Your task to perform on an android device: Go to accessibility settings Image 0: 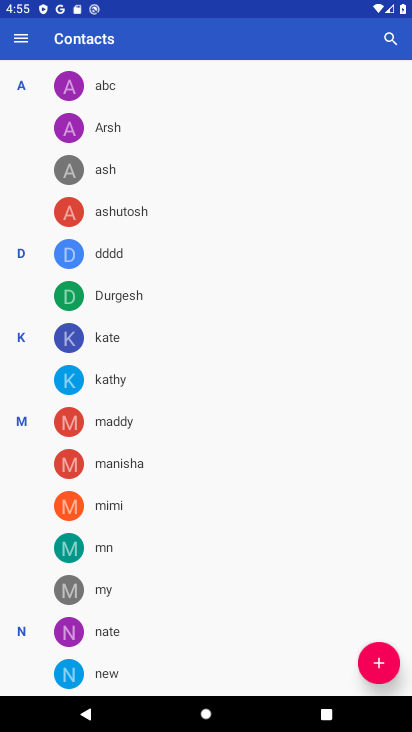
Step 0: press home button
Your task to perform on an android device: Go to accessibility settings Image 1: 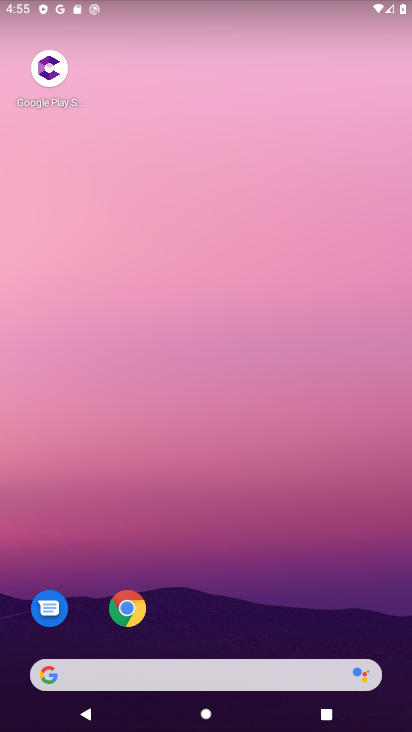
Step 1: drag from (166, 612) to (217, 247)
Your task to perform on an android device: Go to accessibility settings Image 2: 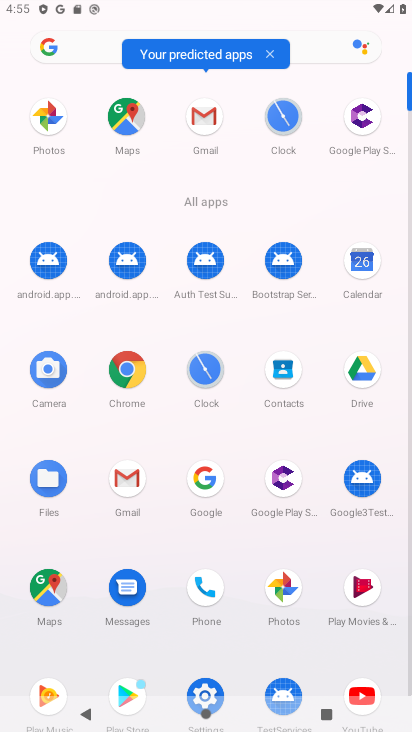
Step 2: drag from (194, 615) to (245, 332)
Your task to perform on an android device: Go to accessibility settings Image 3: 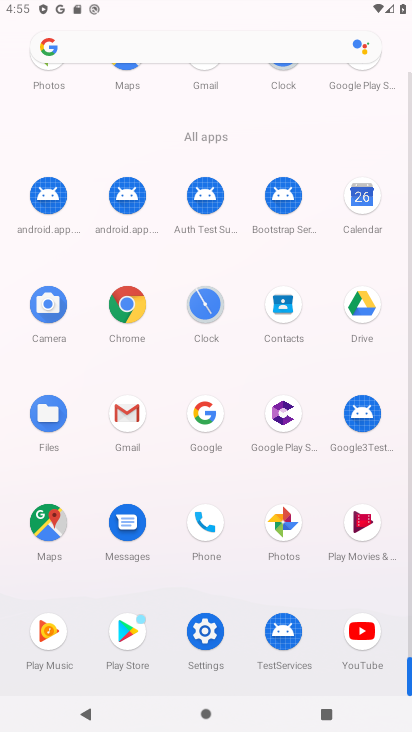
Step 3: click (215, 638)
Your task to perform on an android device: Go to accessibility settings Image 4: 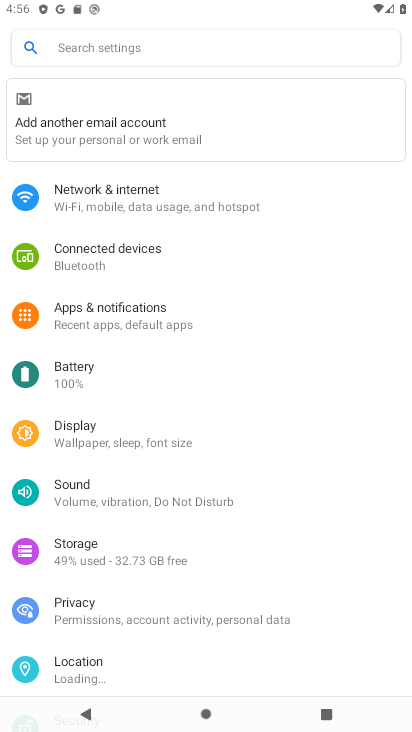
Step 4: drag from (188, 377) to (284, 0)
Your task to perform on an android device: Go to accessibility settings Image 5: 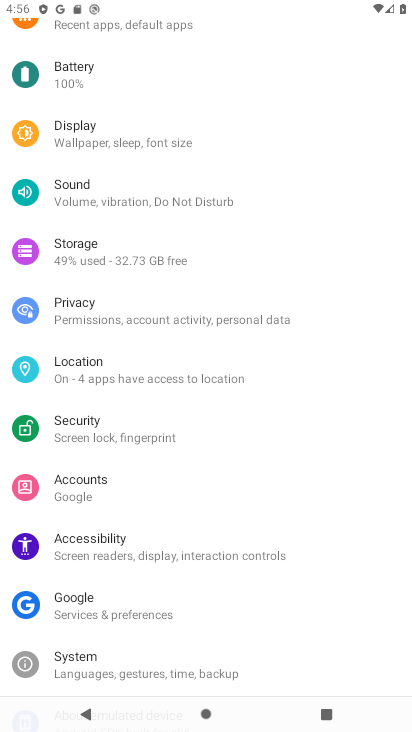
Step 5: click (138, 537)
Your task to perform on an android device: Go to accessibility settings Image 6: 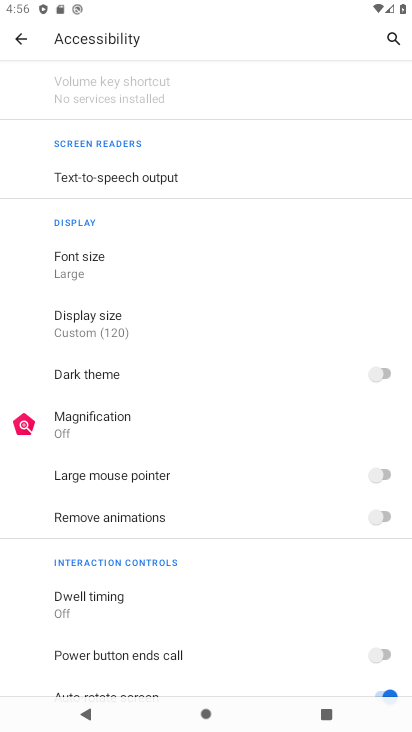
Step 6: task complete